Your task to perform on an android device: open sync settings in chrome Image 0: 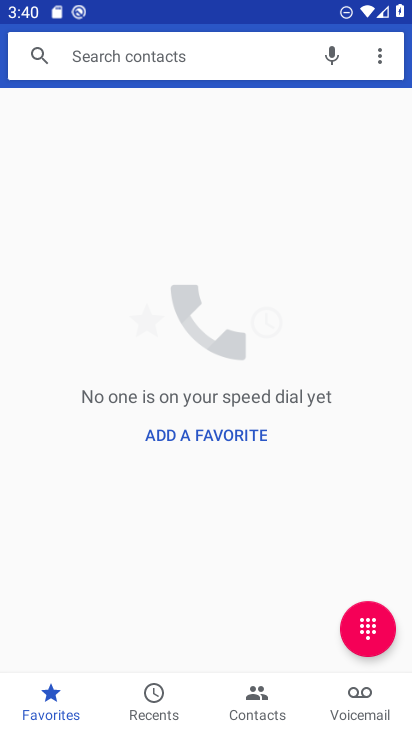
Step 0: press home button
Your task to perform on an android device: open sync settings in chrome Image 1: 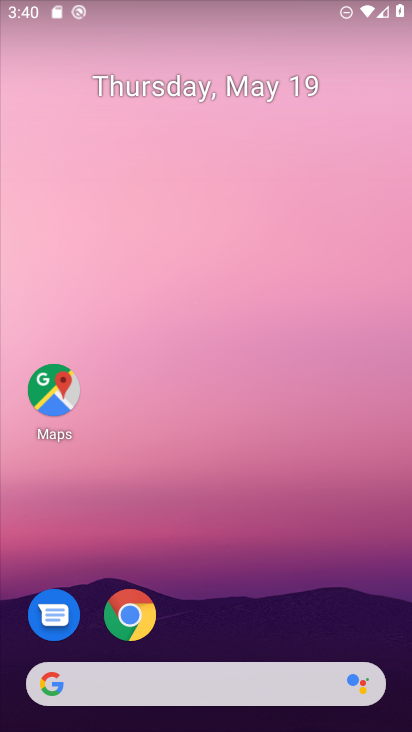
Step 1: click (145, 605)
Your task to perform on an android device: open sync settings in chrome Image 2: 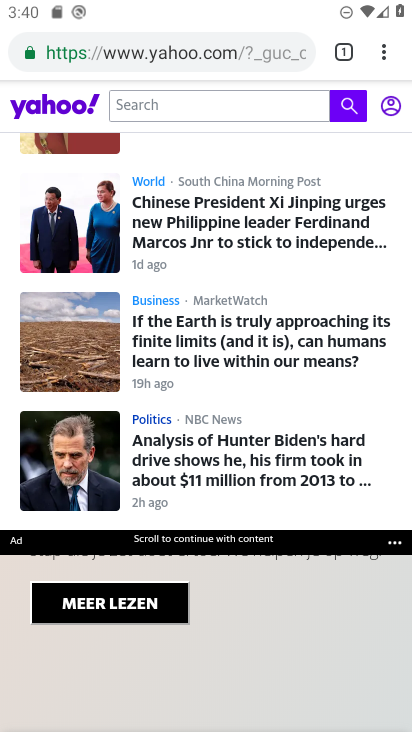
Step 2: click (389, 59)
Your task to perform on an android device: open sync settings in chrome Image 3: 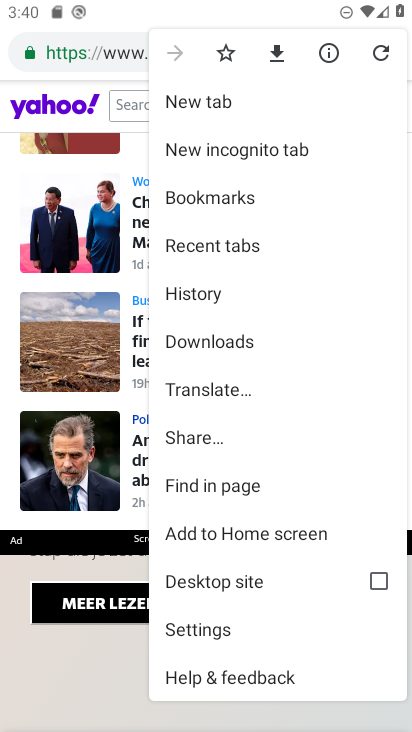
Step 3: click (268, 625)
Your task to perform on an android device: open sync settings in chrome Image 4: 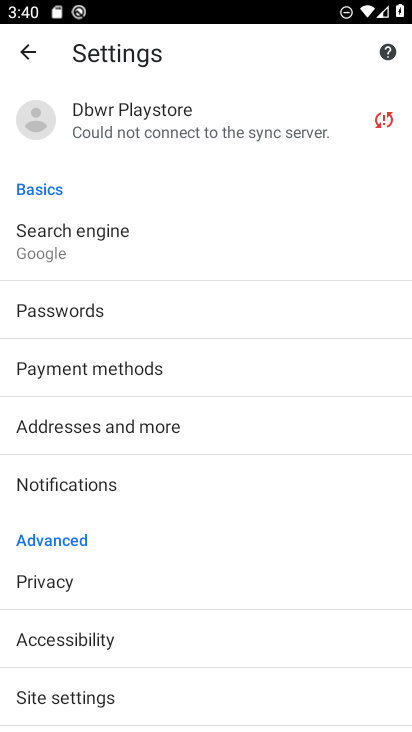
Step 4: click (228, 122)
Your task to perform on an android device: open sync settings in chrome Image 5: 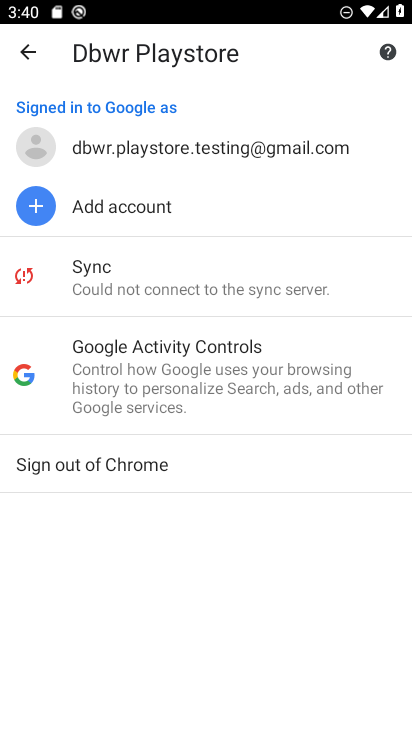
Step 5: click (211, 293)
Your task to perform on an android device: open sync settings in chrome Image 6: 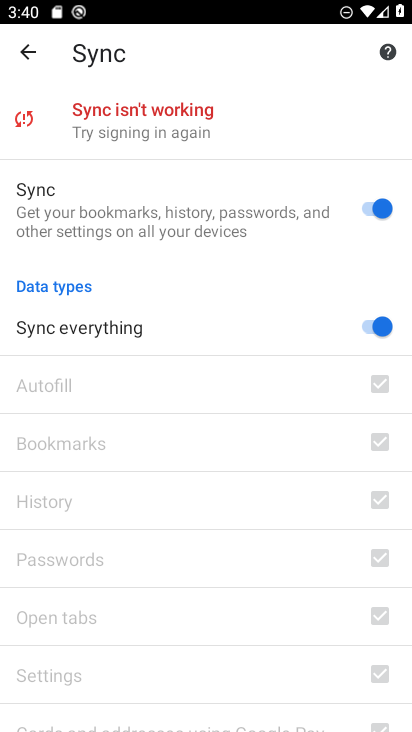
Step 6: task complete